Your task to perform on an android device: toggle location history Image 0: 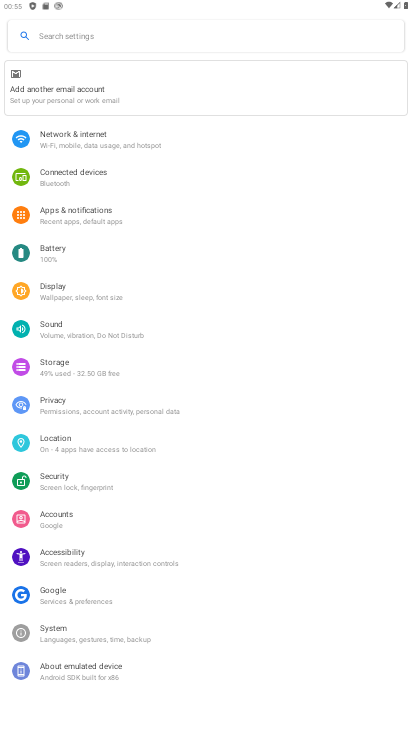
Step 0: click (92, 447)
Your task to perform on an android device: toggle location history Image 1: 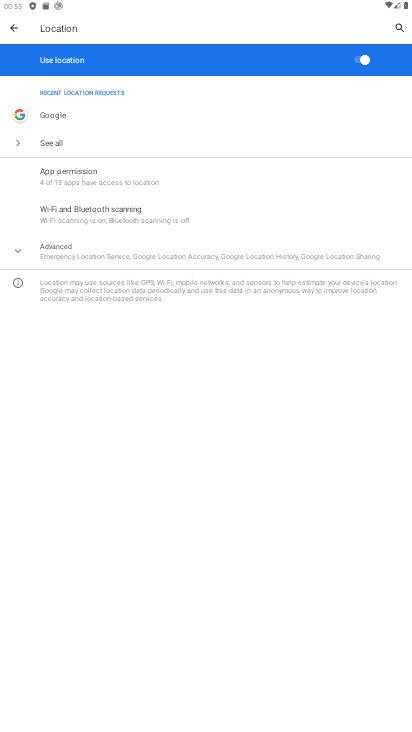
Step 1: click (113, 256)
Your task to perform on an android device: toggle location history Image 2: 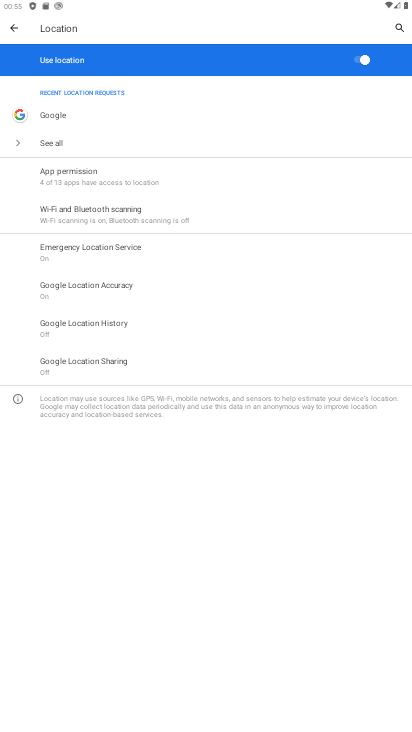
Step 2: click (69, 333)
Your task to perform on an android device: toggle location history Image 3: 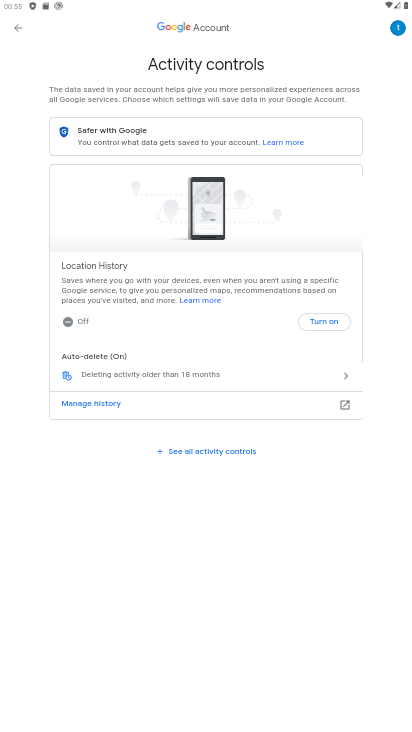
Step 3: click (317, 324)
Your task to perform on an android device: toggle location history Image 4: 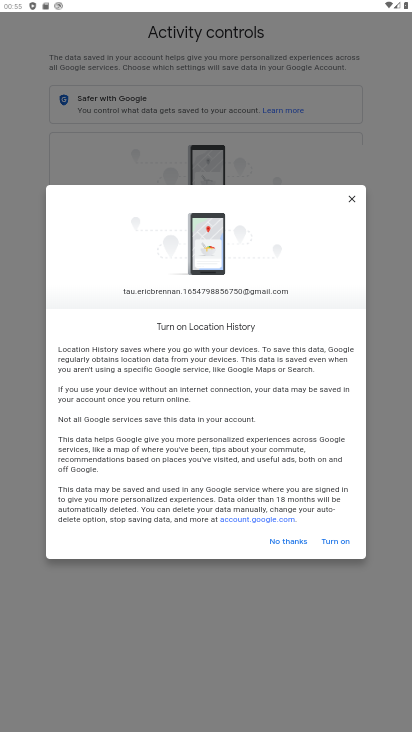
Step 4: click (322, 524)
Your task to perform on an android device: toggle location history Image 5: 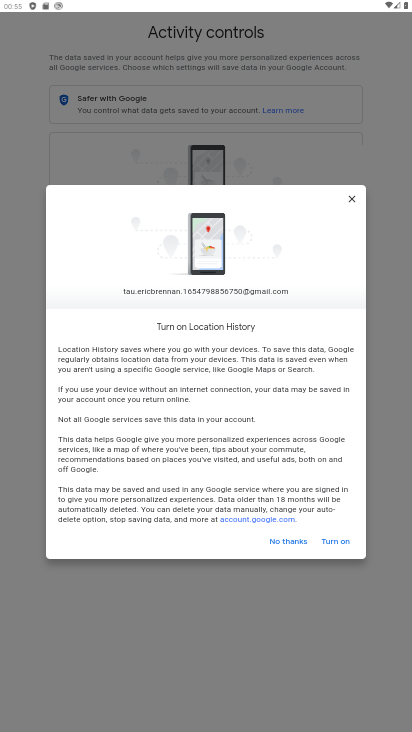
Step 5: click (330, 534)
Your task to perform on an android device: toggle location history Image 6: 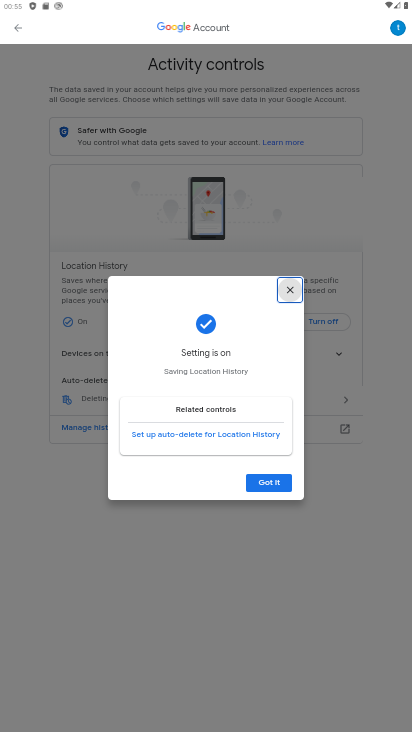
Step 6: click (274, 475)
Your task to perform on an android device: toggle location history Image 7: 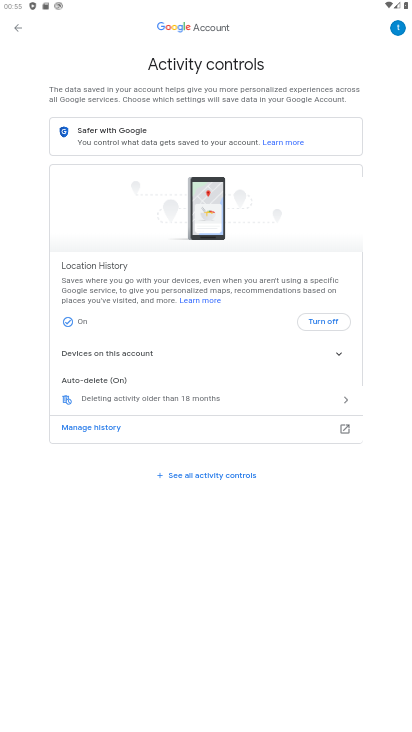
Step 7: task complete